Your task to perform on an android device: Go to Maps Image 0: 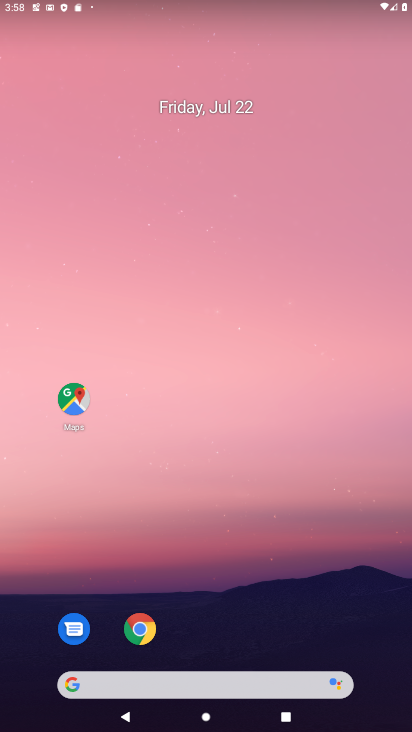
Step 0: click (73, 398)
Your task to perform on an android device: Go to Maps Image 1: 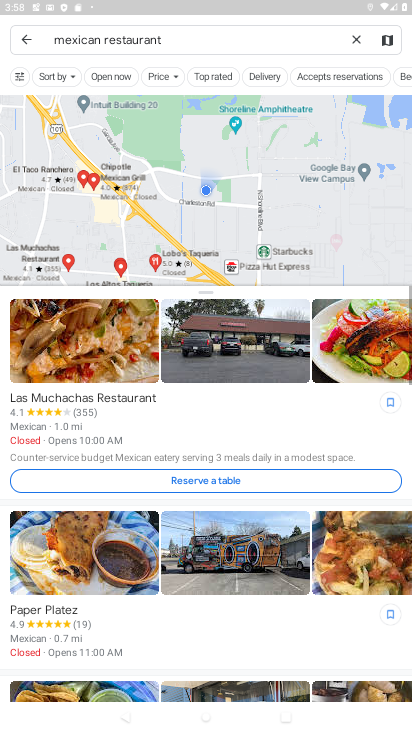
Step 1: task complete